Your task to perform on an android device: open the mobile data screen to see how much data has been used Image 0: 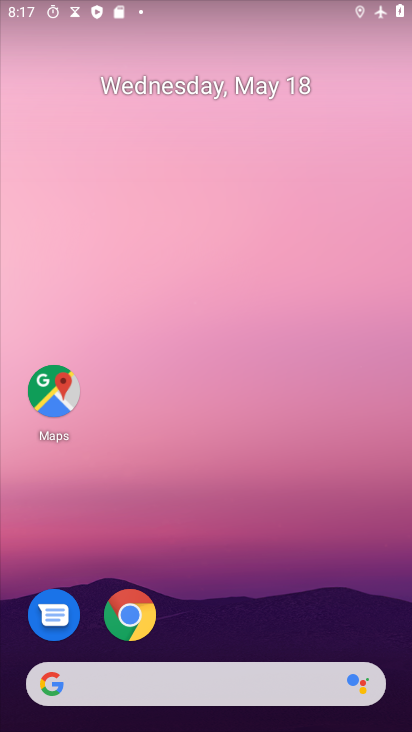
Step 0: drag from (261, 488) to (242, 164)
Your task to perform on an android device: open the mobile data screen to see how much data has been used Image 1: 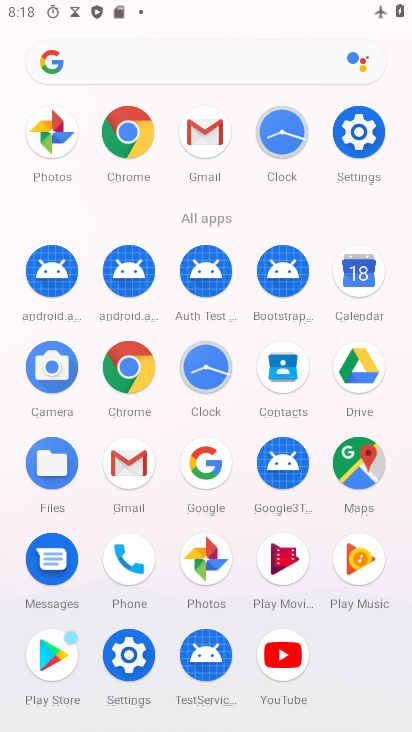
Step 1: click (351, 143)
Your task to perform on an android device: open the mobile data screen to see how much data has been used Image 2: 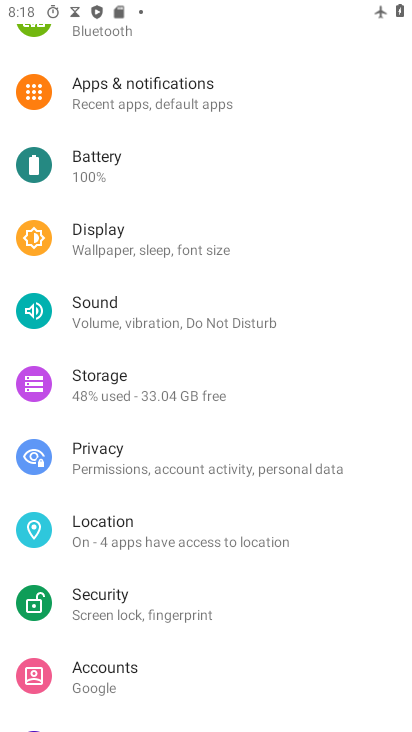
Step 2: drag from (142, 165) to (174, 510)
Your task to perform on an android device: open the mobile data screen to see how much data has been used Image 3: 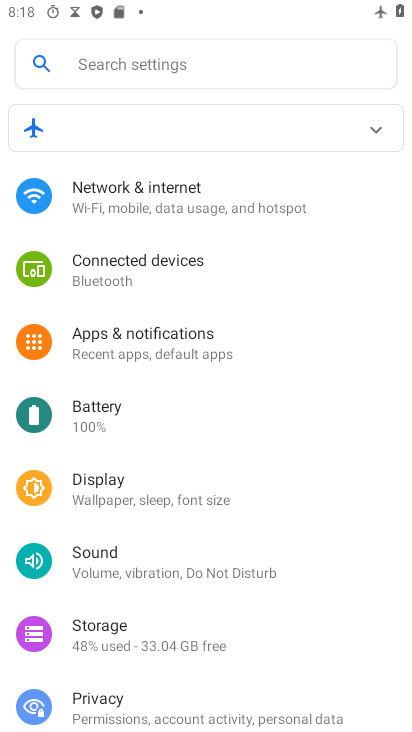
Step 3: click (117, 211)
Your task to perform on an android device: open the mobile data screen to see how much data has been used Image 4: 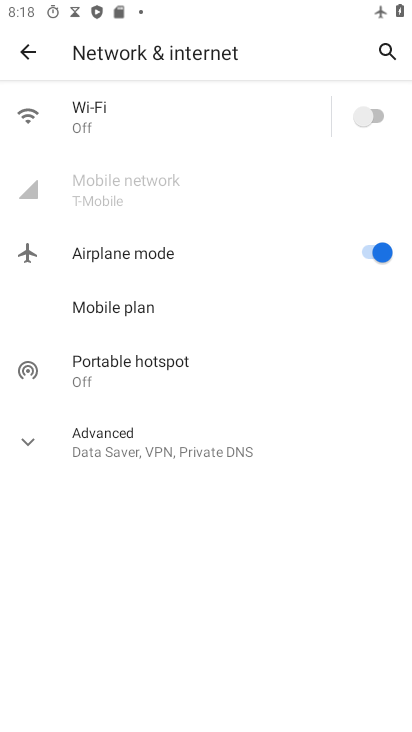
Step 4: click (98, 183)
Your task to perform on an android device: open the mobile data screen to see how much data has been used Image 5: 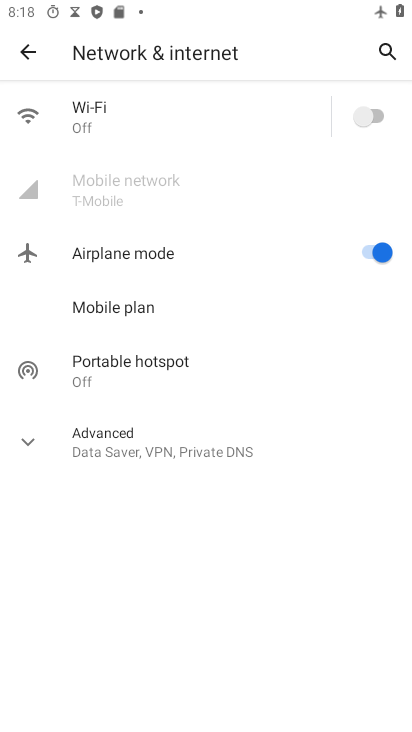
Step 5: task complete